Your task to perform on an android device: Open accessibility settings Image 0: 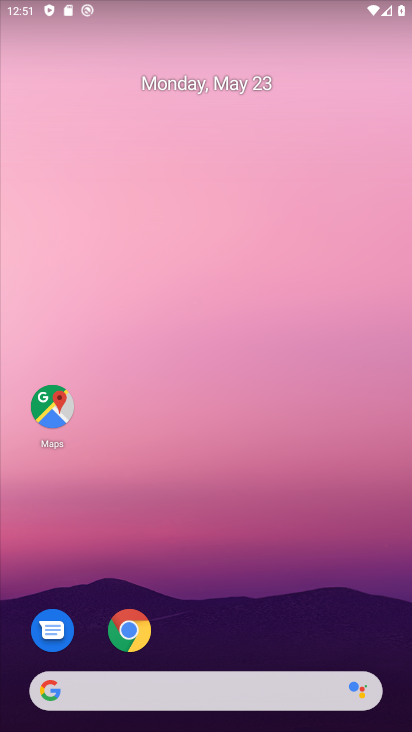
Step 0: drag from (315, 590) to (299, 152)
Your task to perform on an android device: Open accessibility settings Image 1: 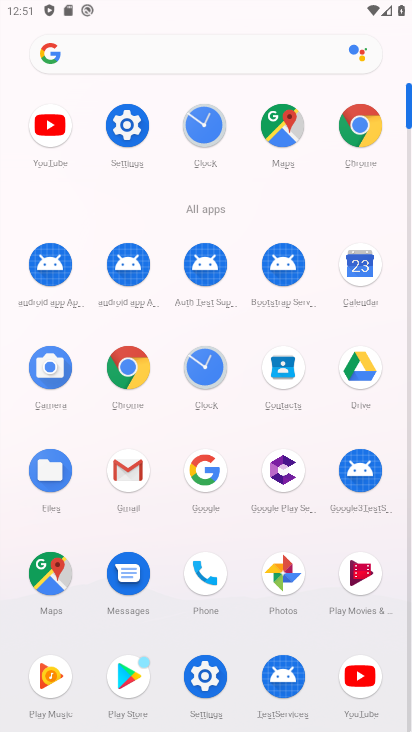
Step 1: click (144, 125)
Your task to perform on an android device: Open accessibility settings Image 2: 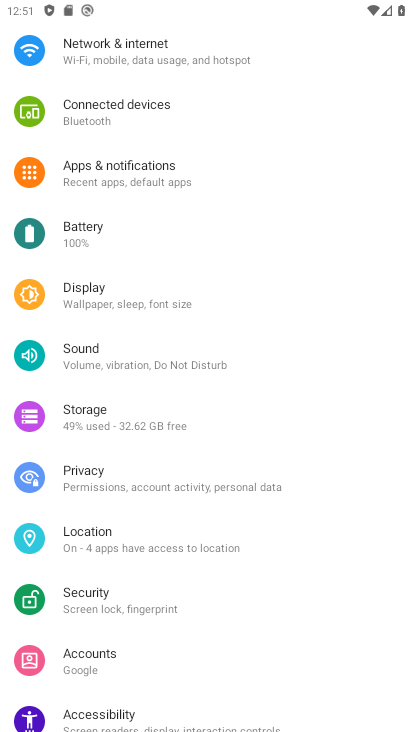
Step 2: click (147, 706)
Your task to perform on an android device: Open accessibility settings Image 3: 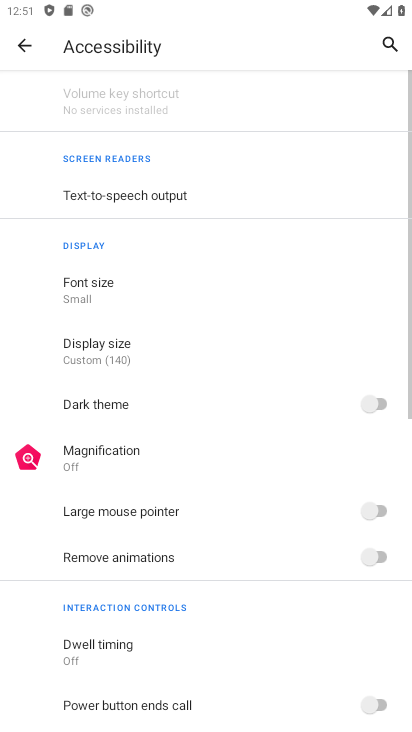
Step 3: task complete